Your task to perform on an android device: set the stopwatch Image 0: 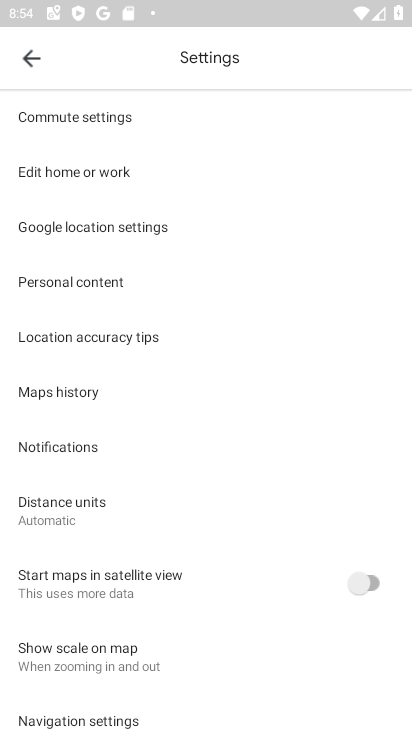
Step 0: press home button
Your task to perform on an android device: set the stopwatch Image 1: 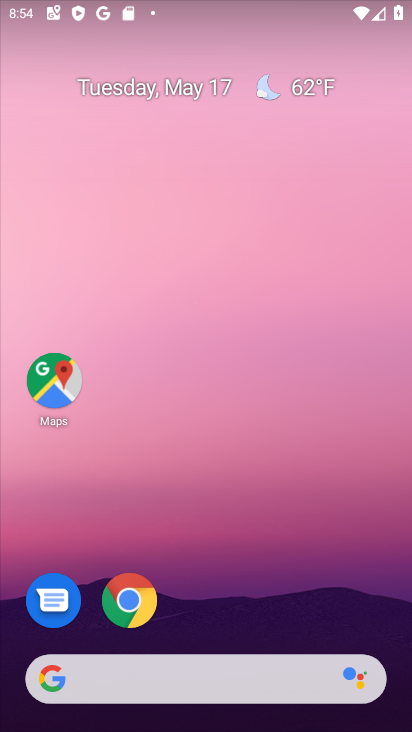
Step 1: drag from (197, 616) to (199, 53)
Your task to perform on an android device: set the stopwatch Image 2: 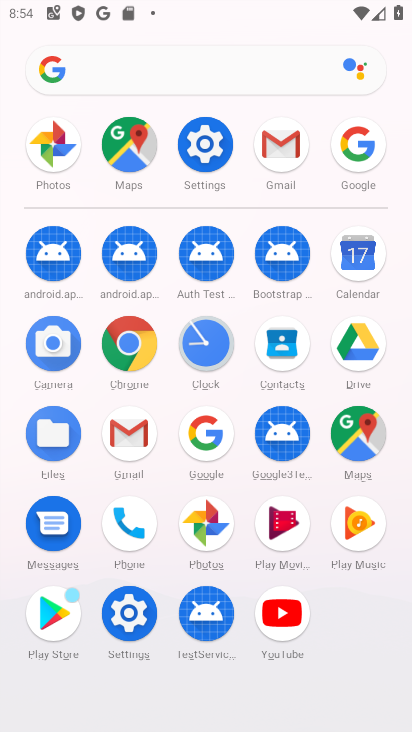
Step 2: click (205, 344)
Your task to perform on an android device: set the stopwatch Image 3: 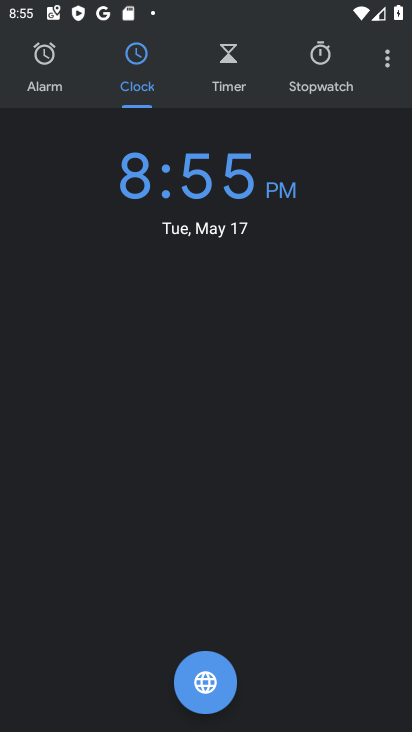
Step 3: click (316, 60)
Your task to perform on an android device: set the stopwatch Image 4: 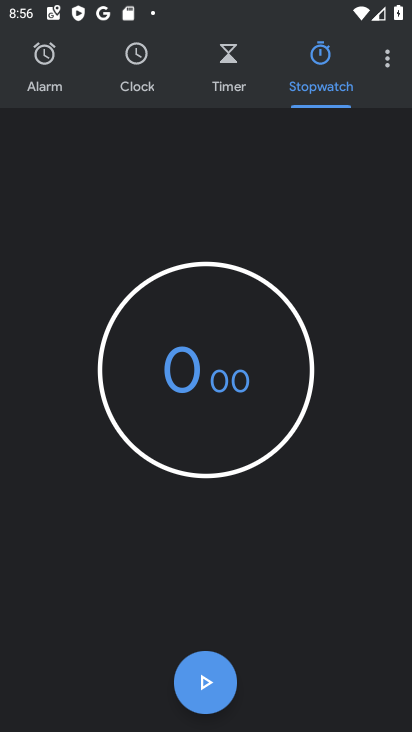
Step 4: click (220, 338)
Your task to perform on an android device: set the stopwatch Image 5: 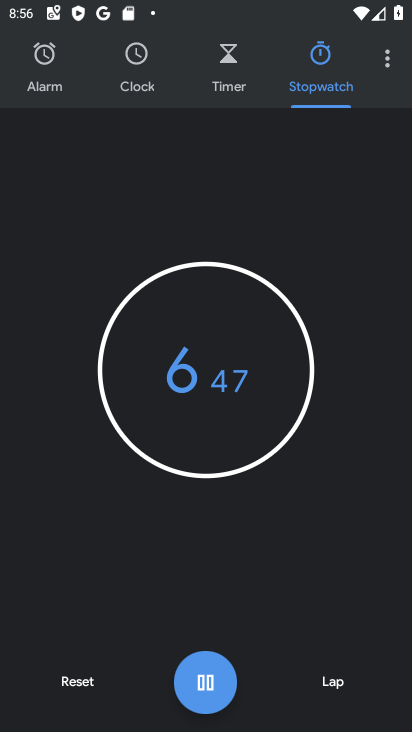
Step 5: type "777"
Your task to perform on an android device: set the stopwatch Image 6: 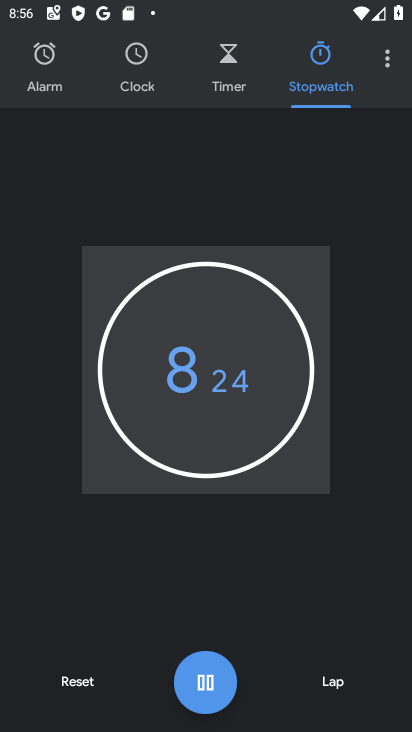
Step 6: task complete